Your task to perform on an android device: open chrome privacy settings Image 0: 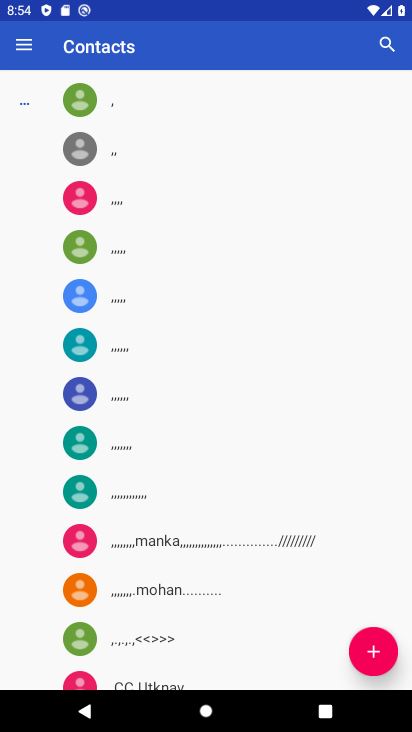
Step 0: press home button
Your task to perform on an android device: open chrome privacy settings Image 1: 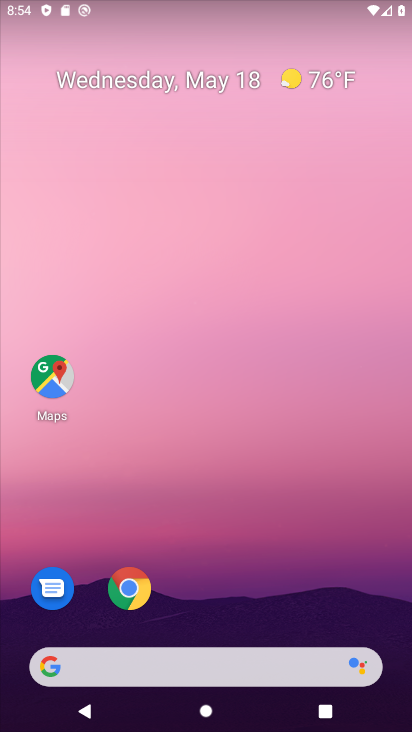
Step 1: click (140, 601)
Your task to perform on an android device: open chrome privacy settings Image 2: 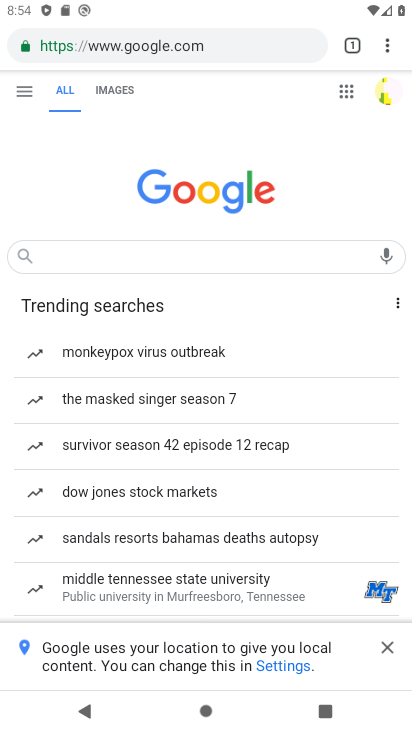
Step 2: click (383, 42)
Your task to perform on an android device: open chrome privacy settings Image 3: 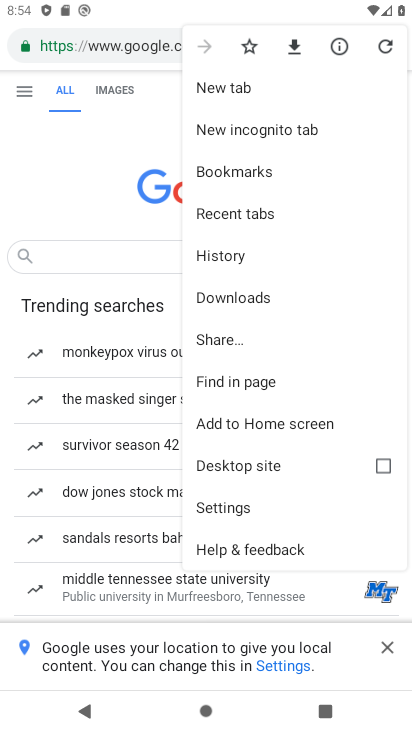
Step 3: click (246, 502)
Your task to perform on an android device: open chrome privacy settings Image 4: 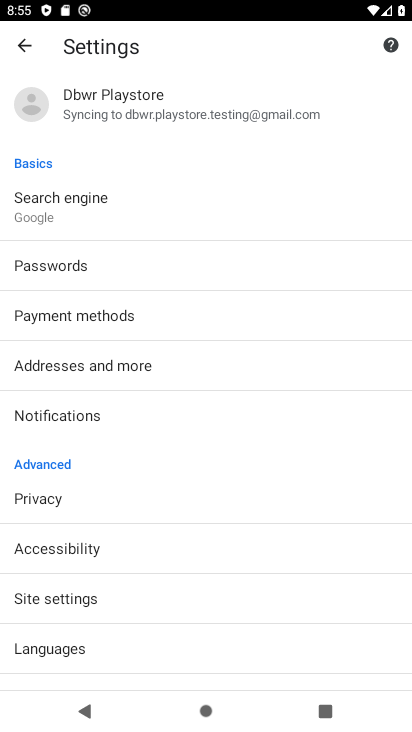
Step 4: click (146, 498)
Your task to perform on an android device: open chrome privacy settings Image 5: 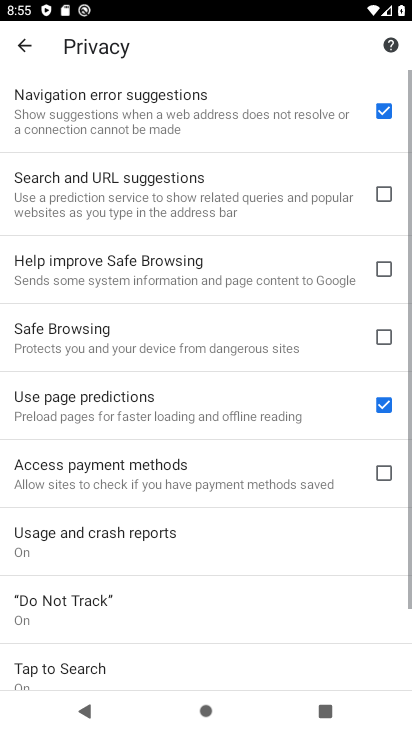
Step 5: task complete